Your task to perform on an android device: Go to ESPN.com Image 0: 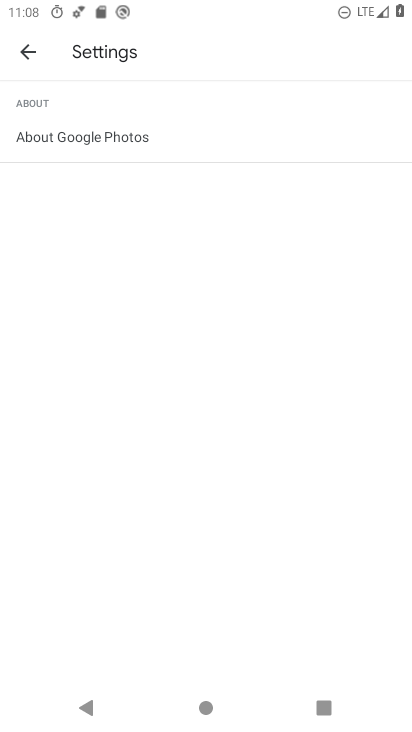
Step 0: press back button
Your task to perform on an android device: Go to ESPN.com Image 1: 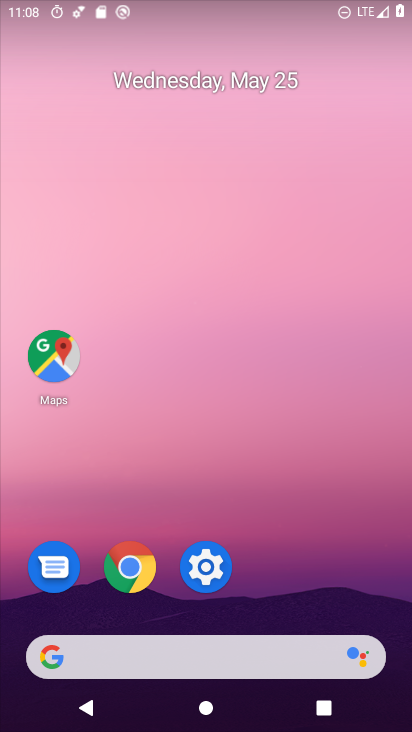
Step 1: drag from (262, 668) to (153, 148)
Your task to perform on an android device: Go to ESPN.com Image 2: 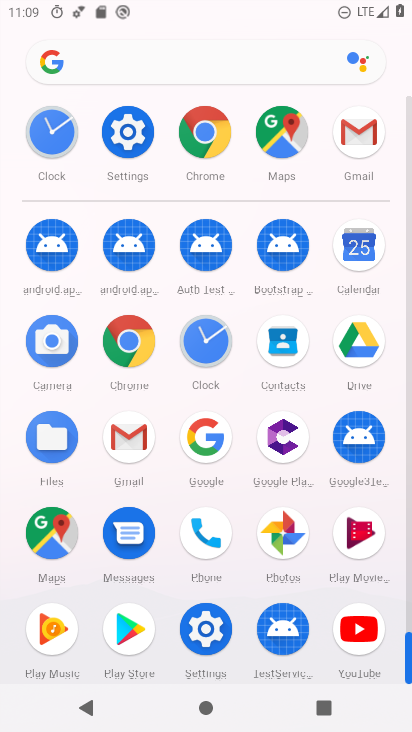
Step 2: click (200, 146)
Your task to perform on an android device: Go to ESPN.com Image 3: 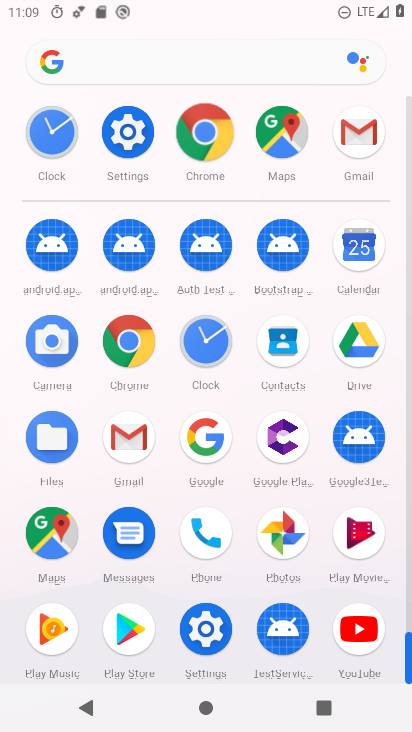
Step 3: click (200, 146)
Your task to perform on an android device: Go to ESPN.com Image 4: 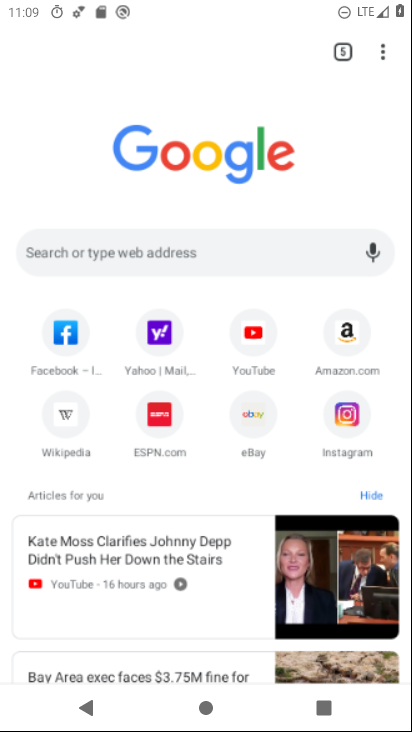
Step 4: click (200, 146)
Your task to perform on an android device: Go to ESPN.com Image 5: 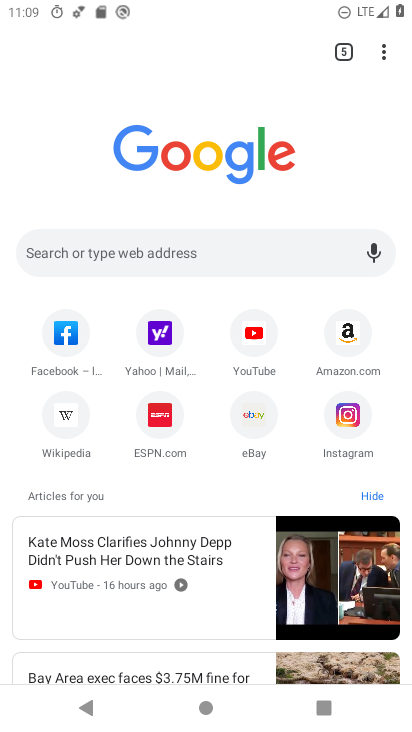
Step 5: click (166, 426)
Your task to perform on an android device: Go to ESPN.com Image 6: 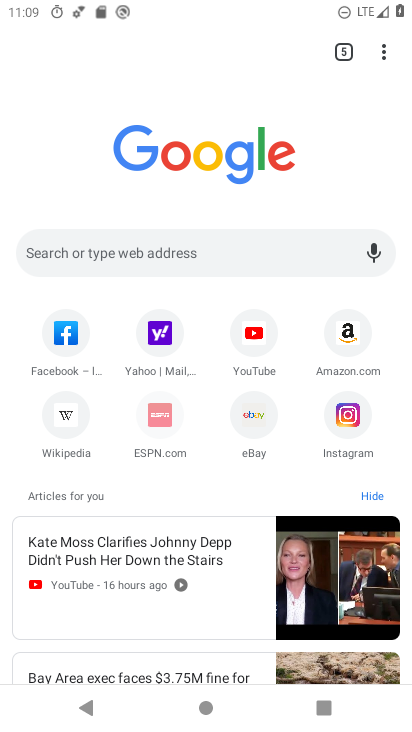
Step 6: click (166, 426)
Your task to perform on an android device: Go to ESPN.com Image 7: 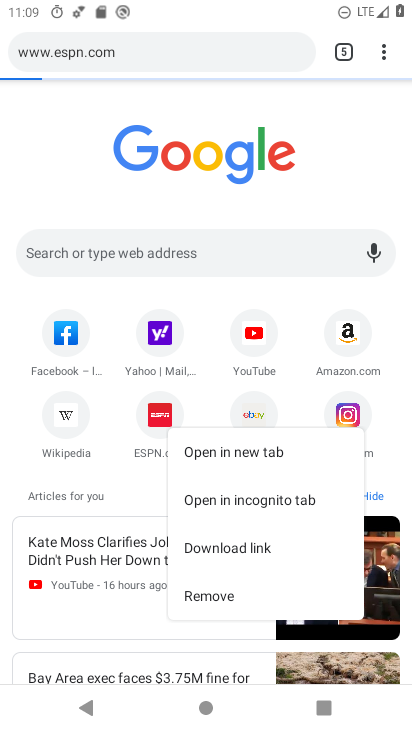
Step 7: click (166, 426)
Your task to perform on an android device: Go to ESPN.com Image 8: 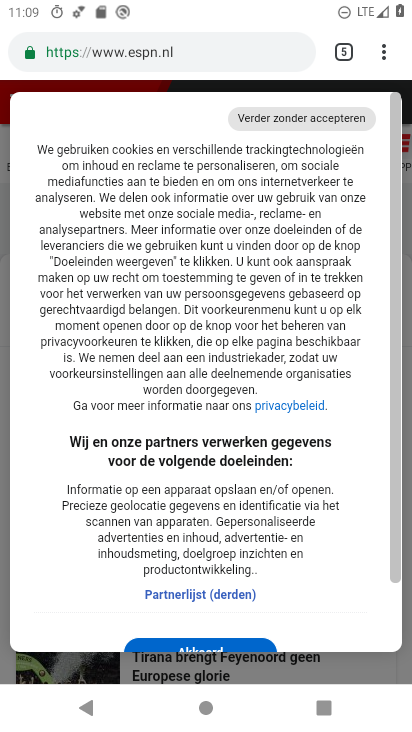
Step 8: task complete